Your task to perform on an android device: Open the Play Movies app and select the watchlist tab. Image 0: 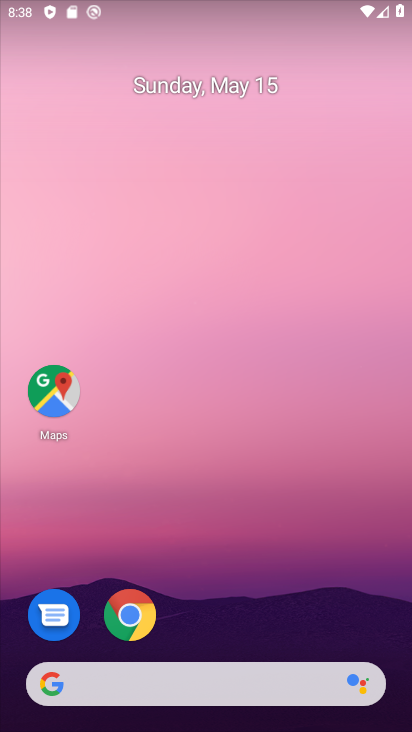
Step 0: drag from (249, 530) to (193, 15)
Your task to perform on an android device: Open the Play Movies app and select the watchlist tab. Image 1: 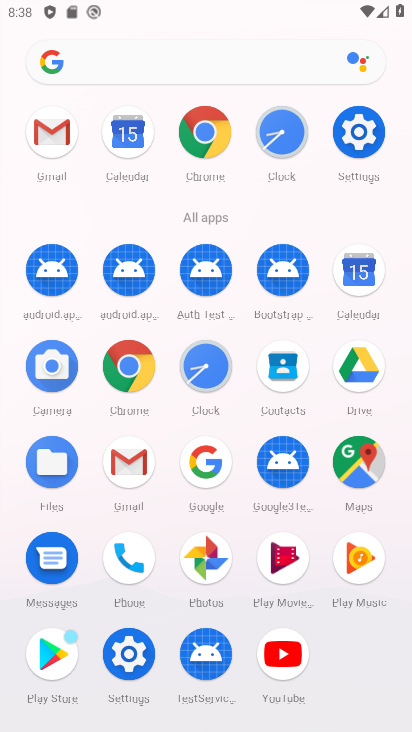
Step 1: drag from (0, 576) to (0, 403)
Your task to perform on an android device: Open the Play Movies app and select the watchlist tab. Image 2: 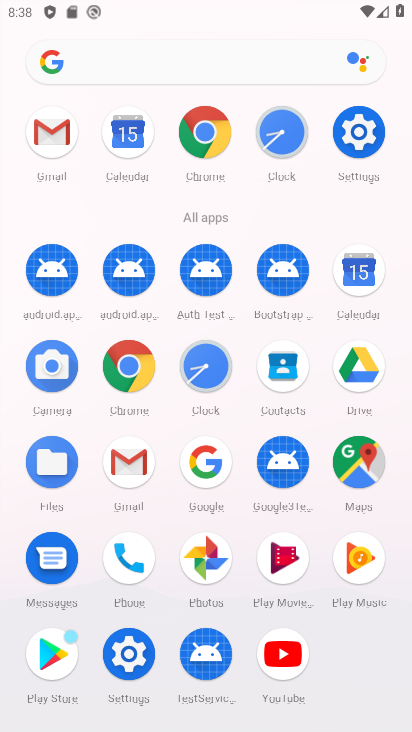
Step 2: drag from (15, 527) to (13, 304)
Your task to perform on an android device: Open the Play Movies app and select the watchlist tab. Image 3: 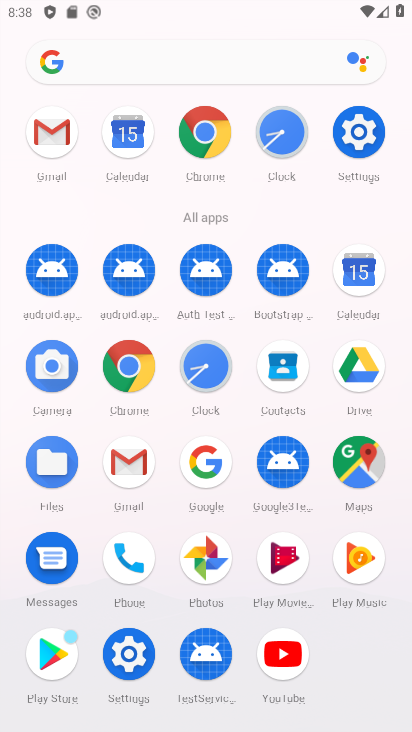
Step 3: click (281, 552)
Your task to perform on an android device: Open the Play Movies app and select the watchlist tab. Image 4: 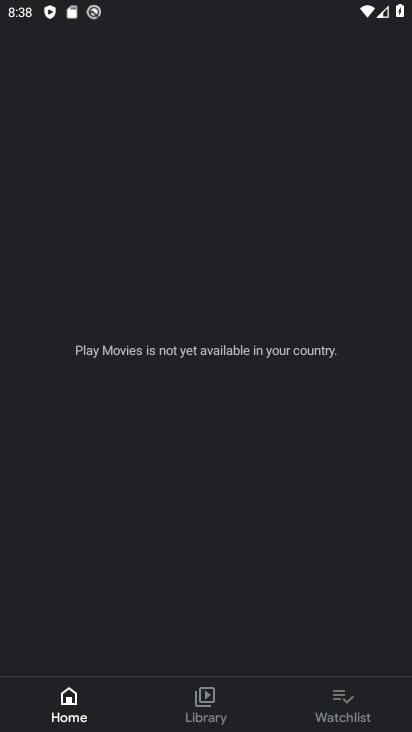
Step 4: click (317, 694)
Your task to perform on an android device: Open the Play Movies app and select the watchlist tab. Image 5: 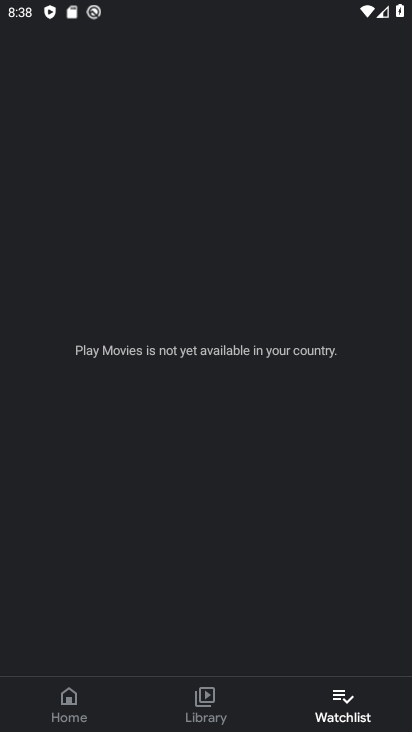
Step 5: task complete